Your task to perform on an android device: change keyboard looks Image 0: 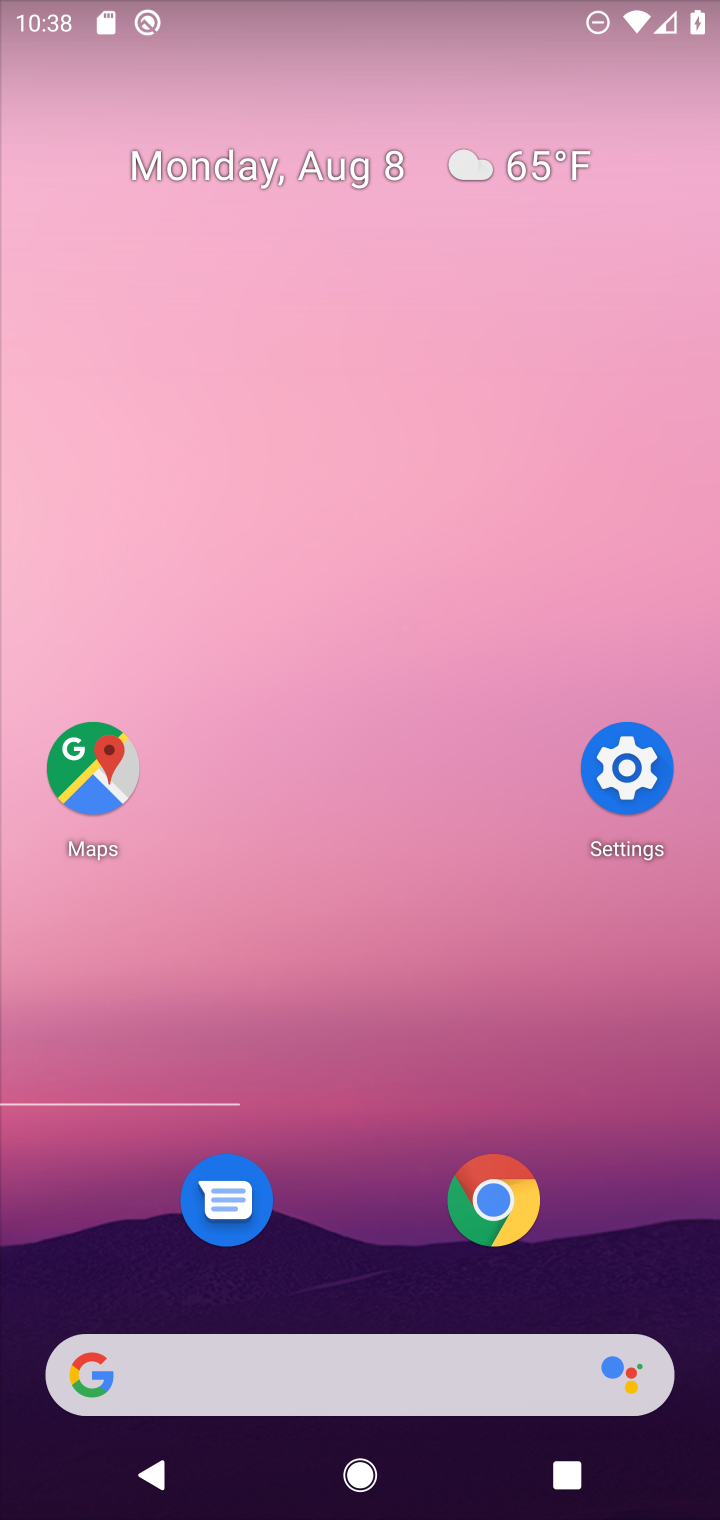
Step 0: press home button
Your task to perform on an android device: change keyboard looks Image 1: 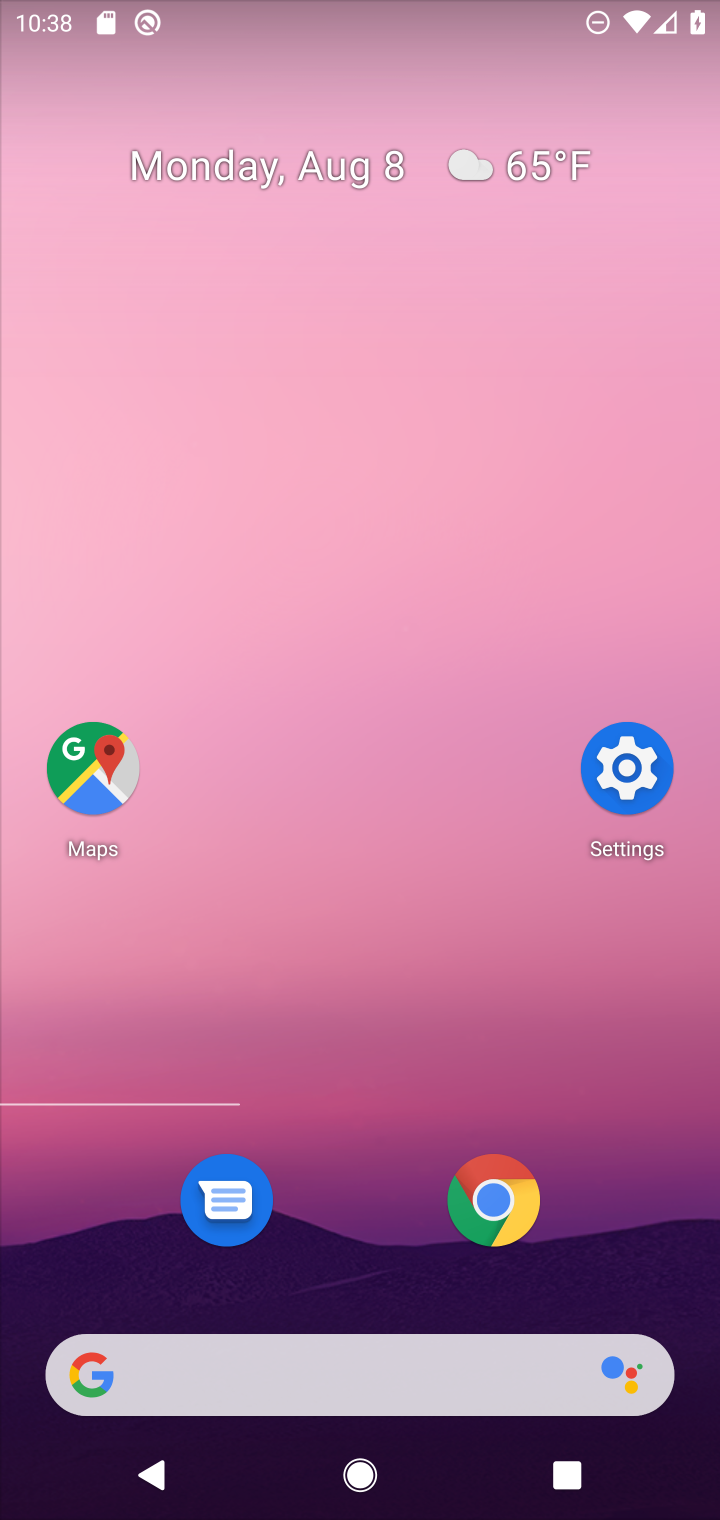
Step 1: drag from (312, 1354) to (605, 153)
Your task to perform on an android device: change keyboard looks Image 2: 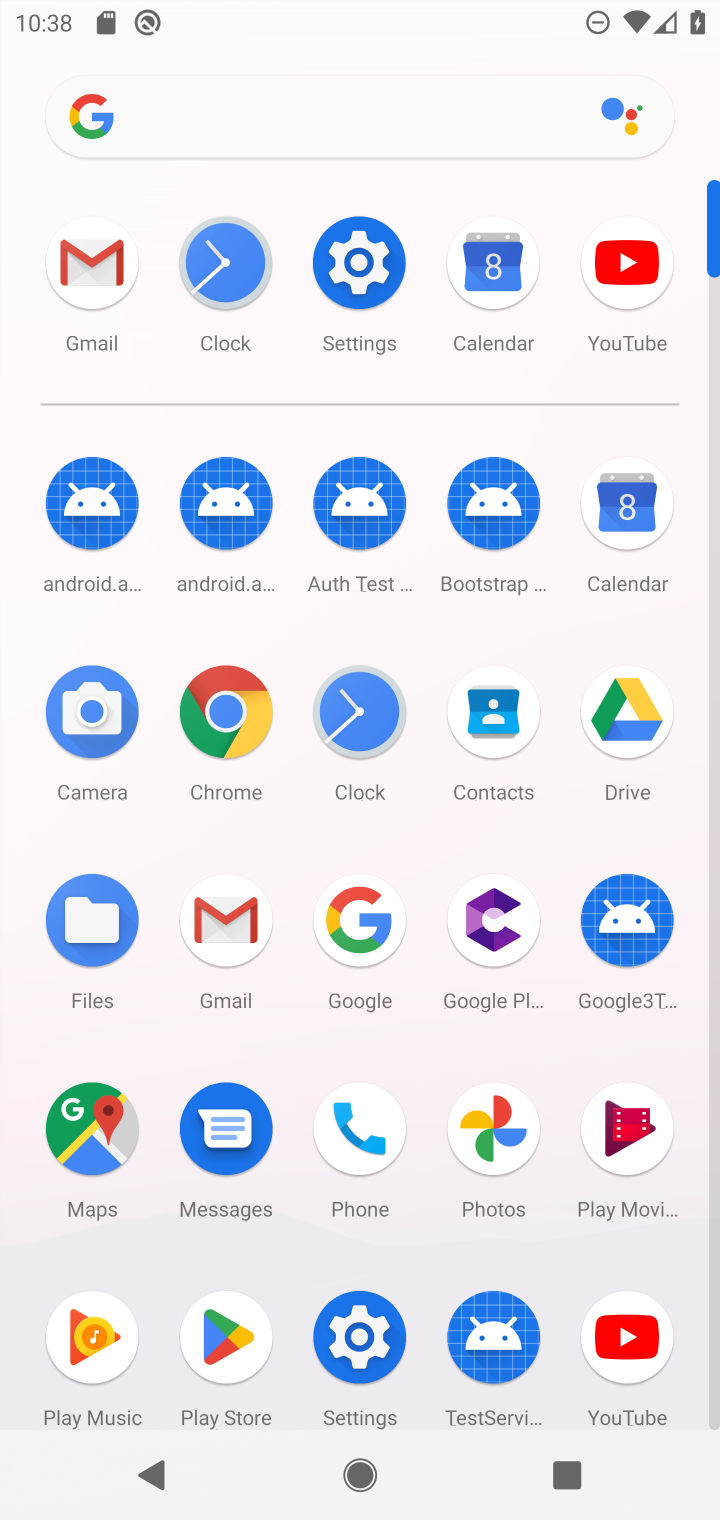
Step 2: click (349, 250)
Your task to perform on an android device: change keyboard looks Image 3: 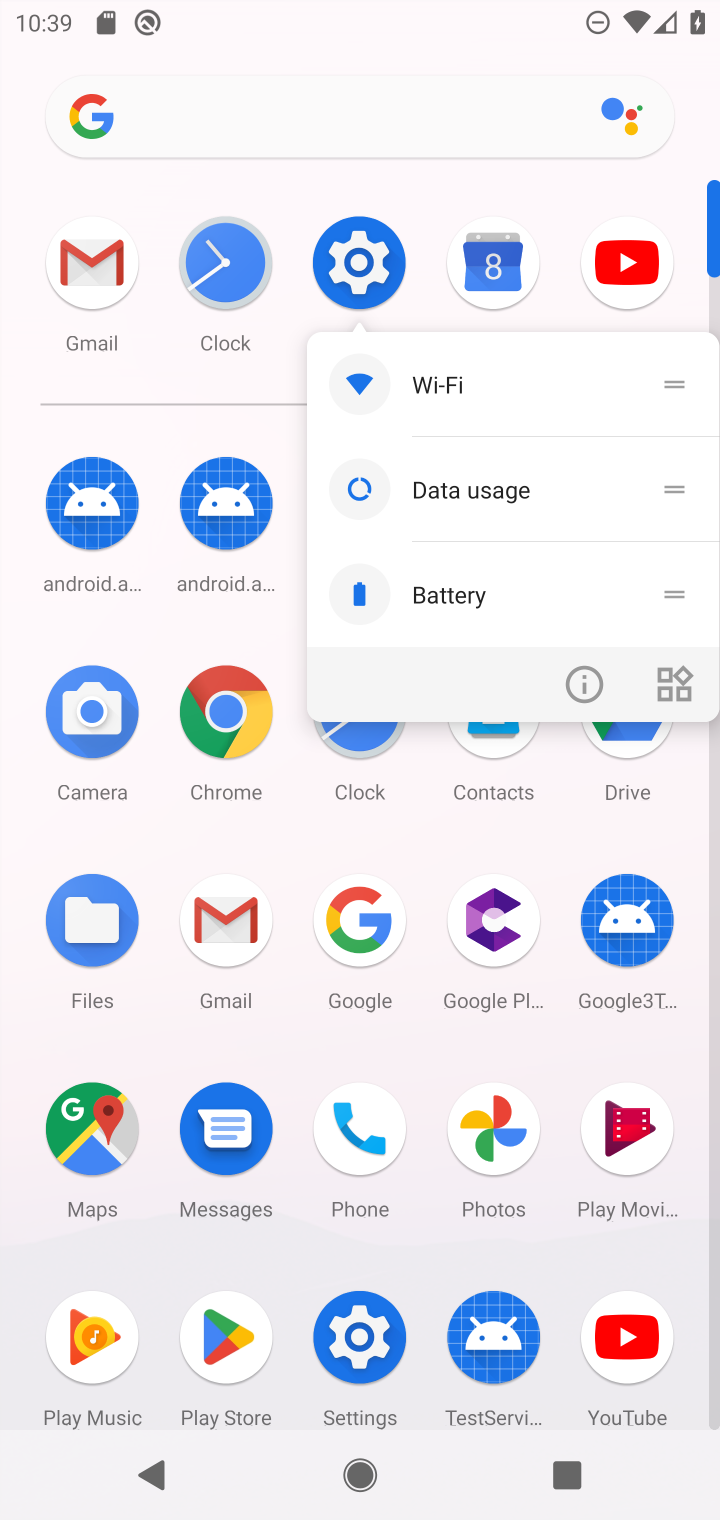
Step 3: click (349, 250)
Your task to perform on an android device: change keyboard looks Image 4: 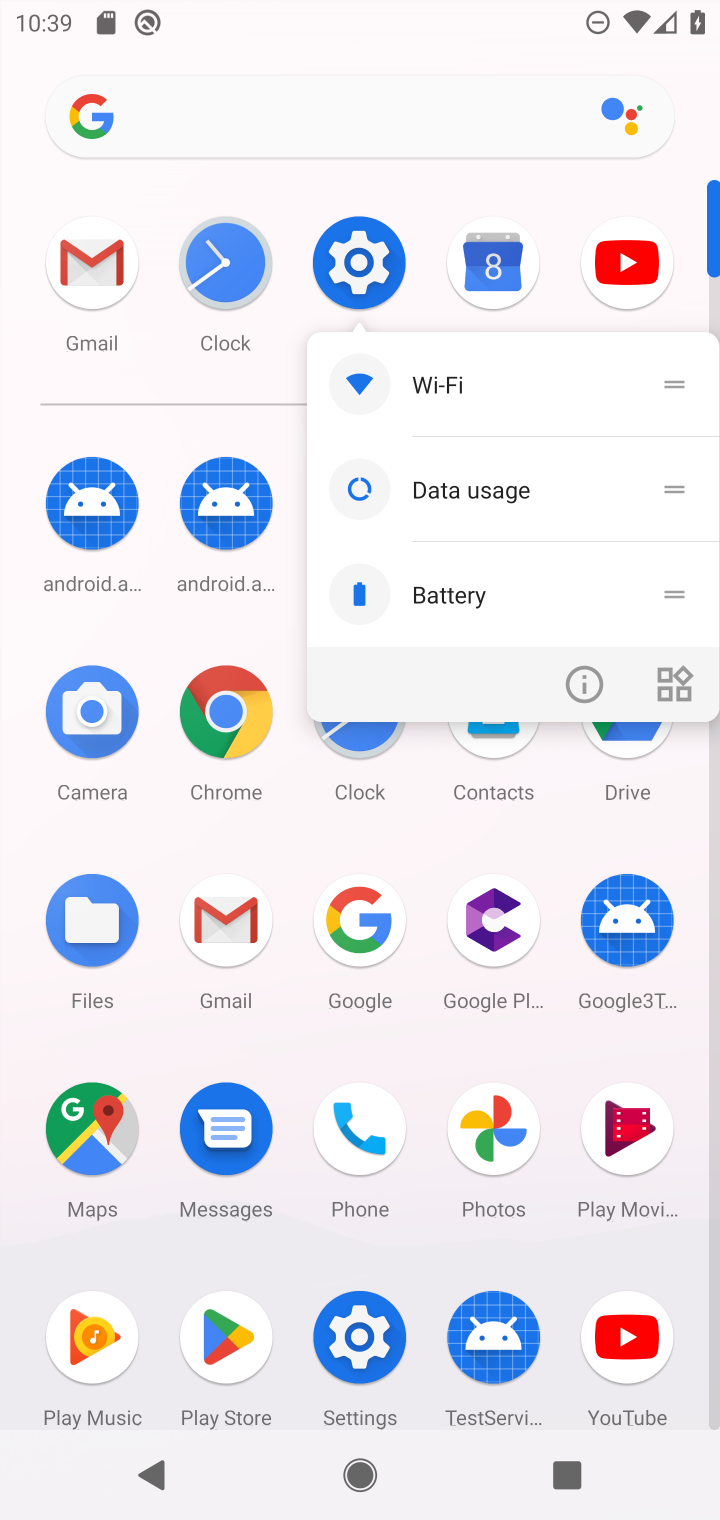
Step 4: click (349, 248)
Your task to perform on an android device: change keyboard looks Image 5: 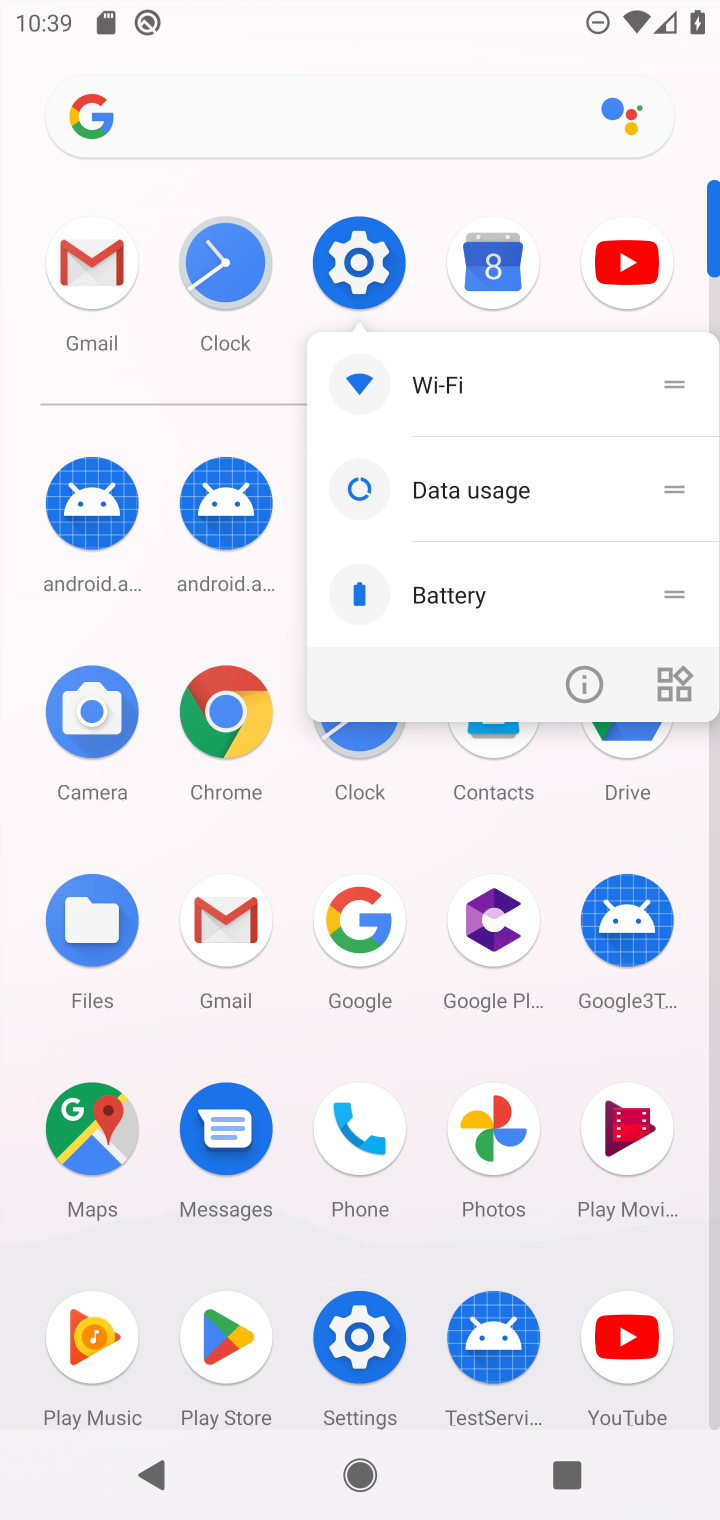
Step 5: click (351, 243)
Your task to perform on an android device: change keyboard looks Image 6: 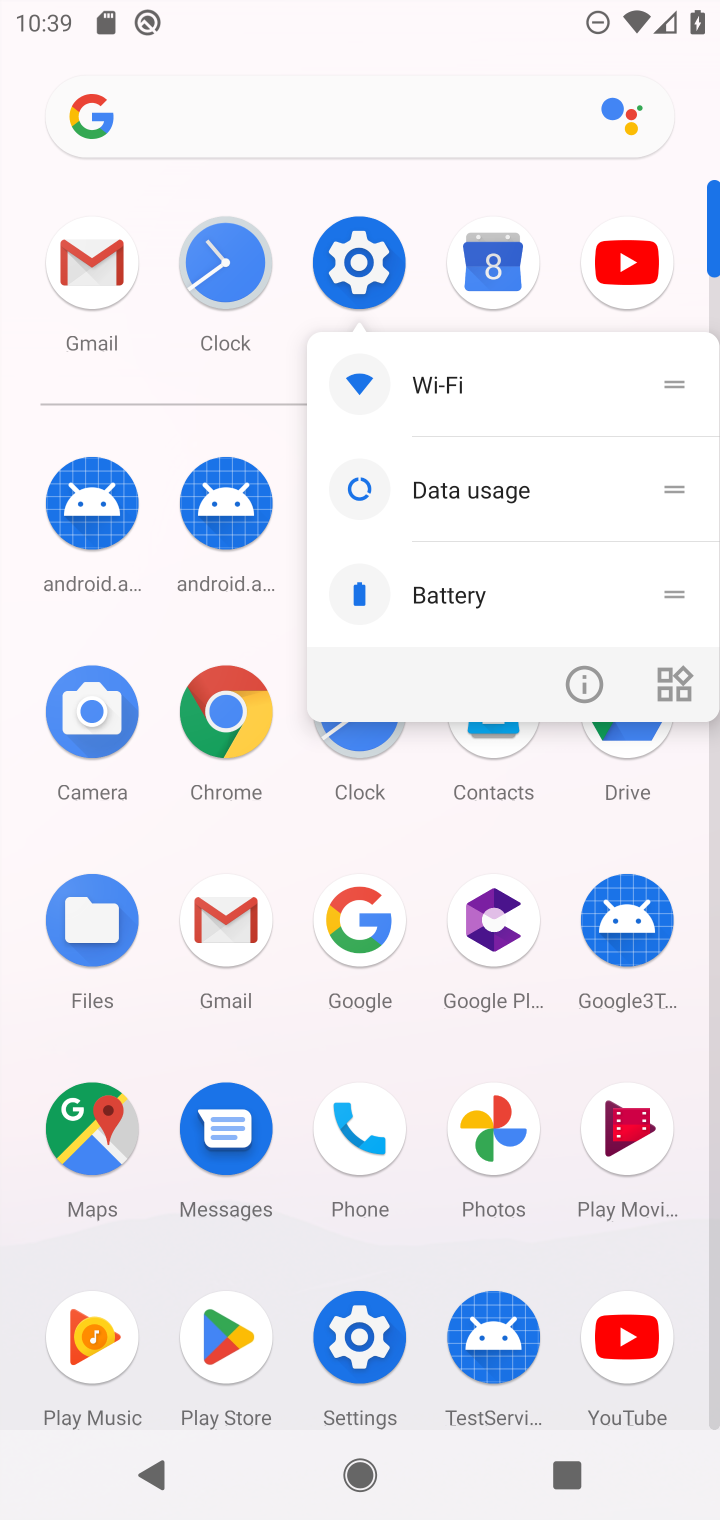
Step 6: click (385, 262)
Your task to perform on an android device: change keyboard looks Image 7: 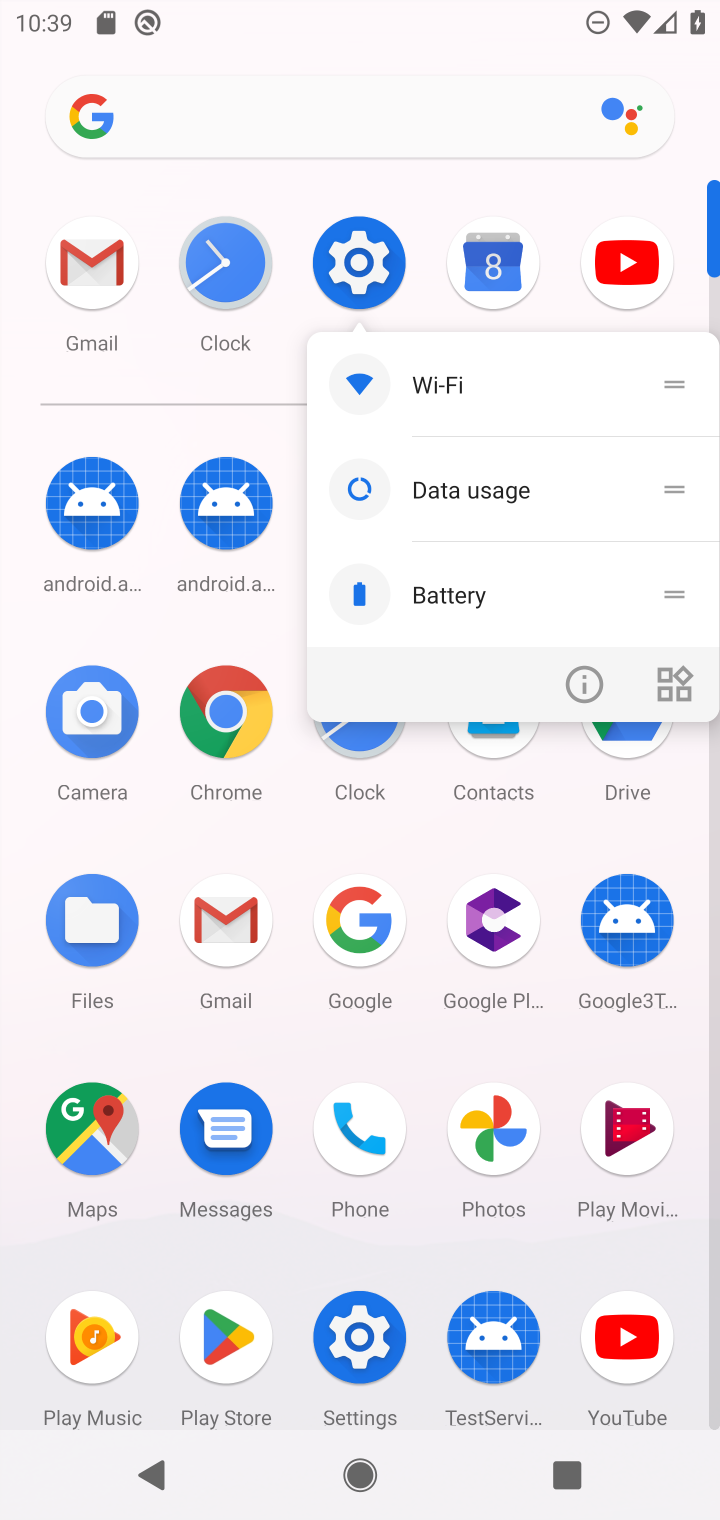
Step 7: click (364, 272)
Your task to perform on an android device: change keyboard looks Image 8: 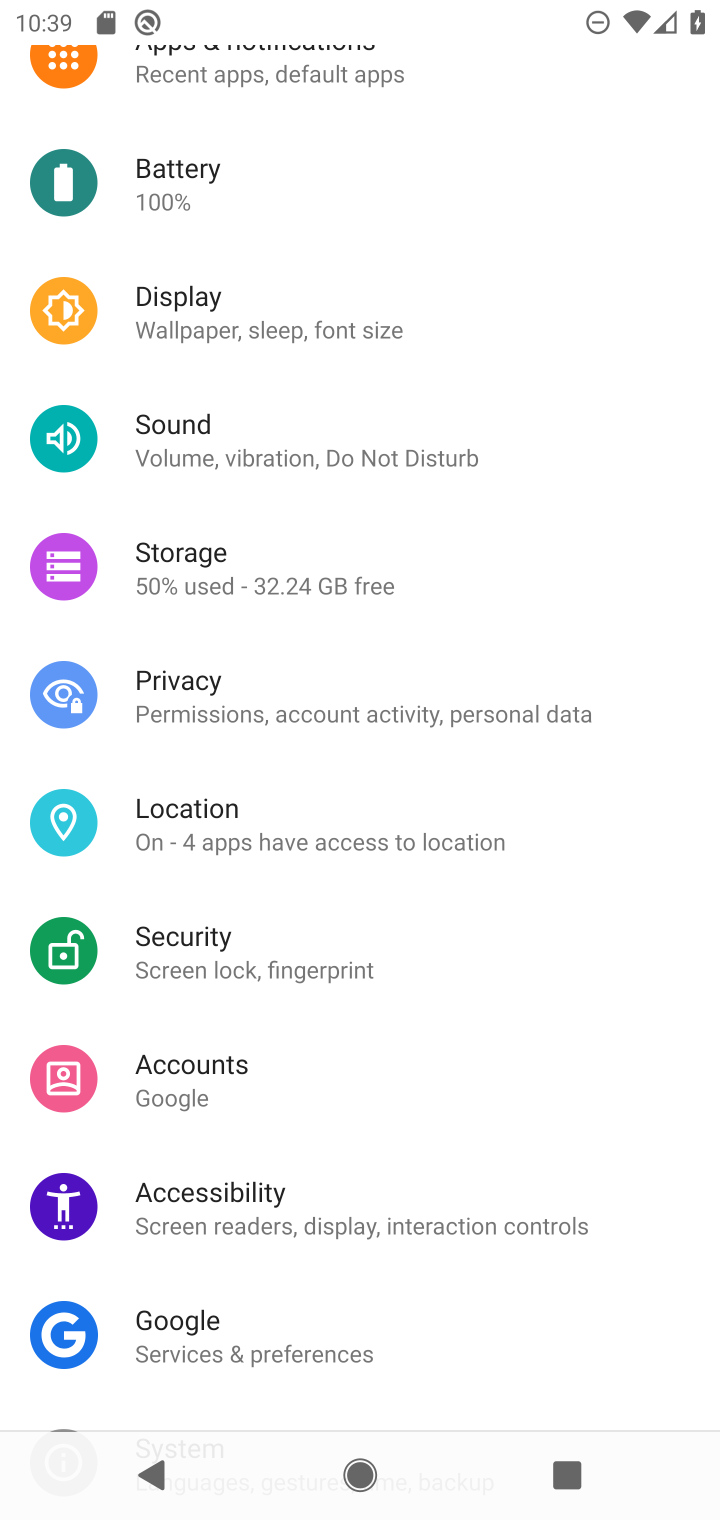
Step 8: drag from (401, 1108) to (595, 228)
Your task to perform on an android device: change keyboard looks Image 9: 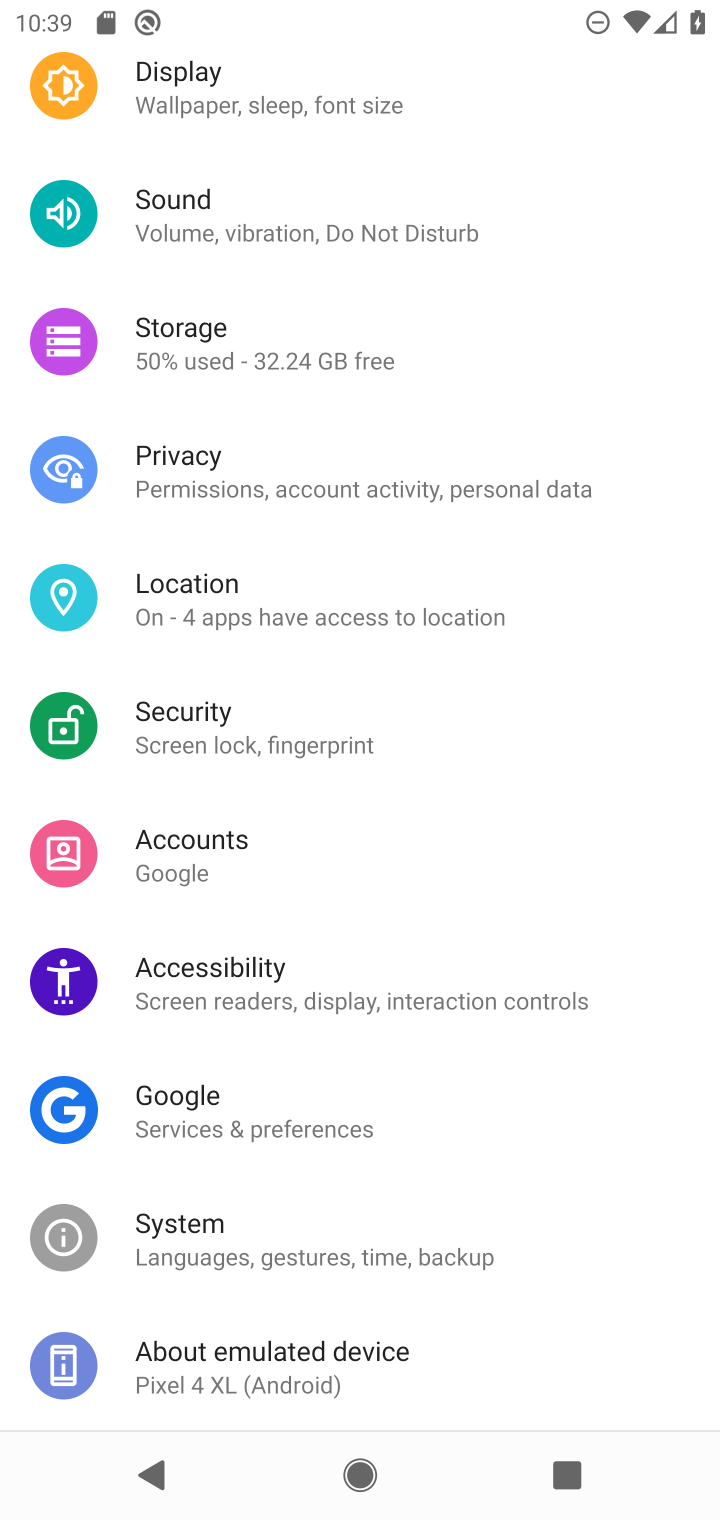
Step 9: click (162, 1235)
Your task to perform on an android device: change keyboard looks Image 10: 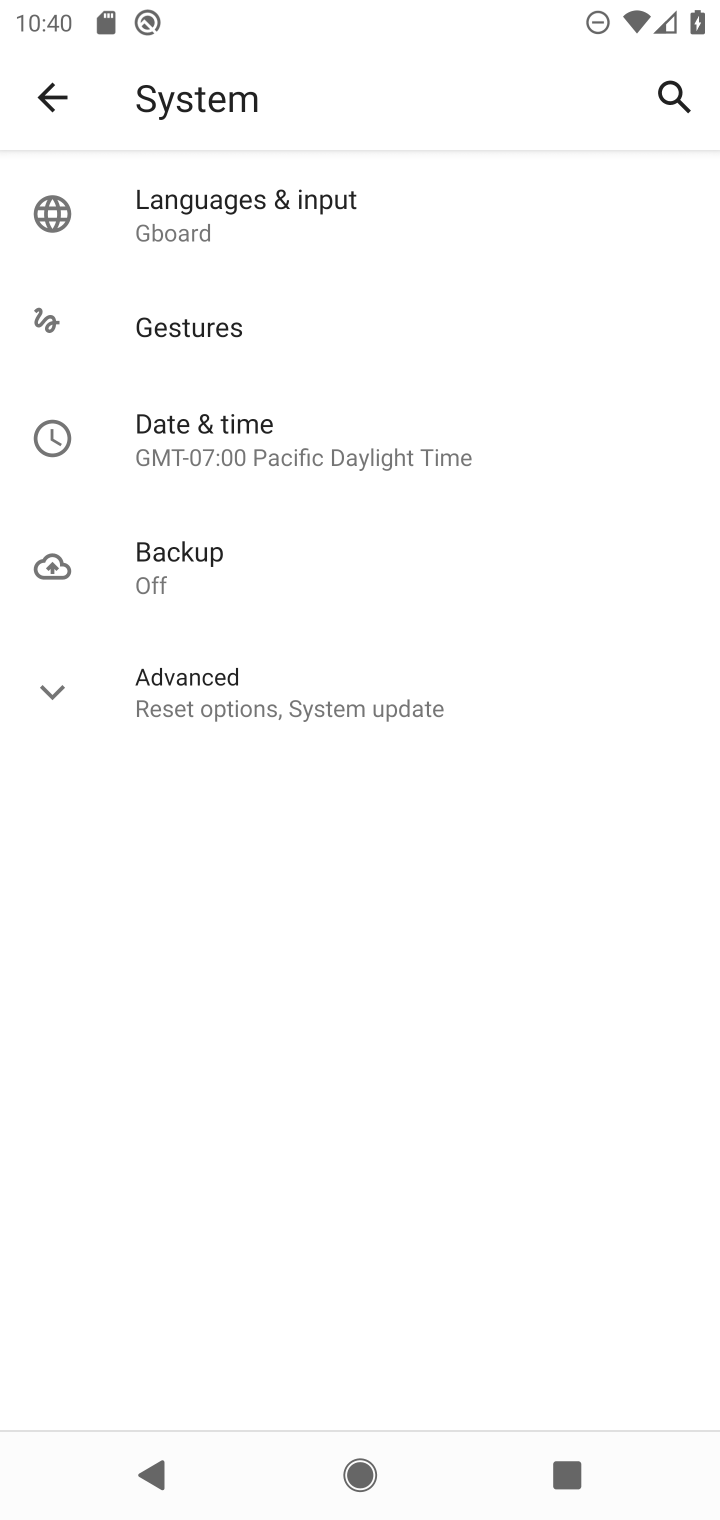
Step 10: click (254, 226)
Your task to perform on an android device: change keyboard looks Image 11: 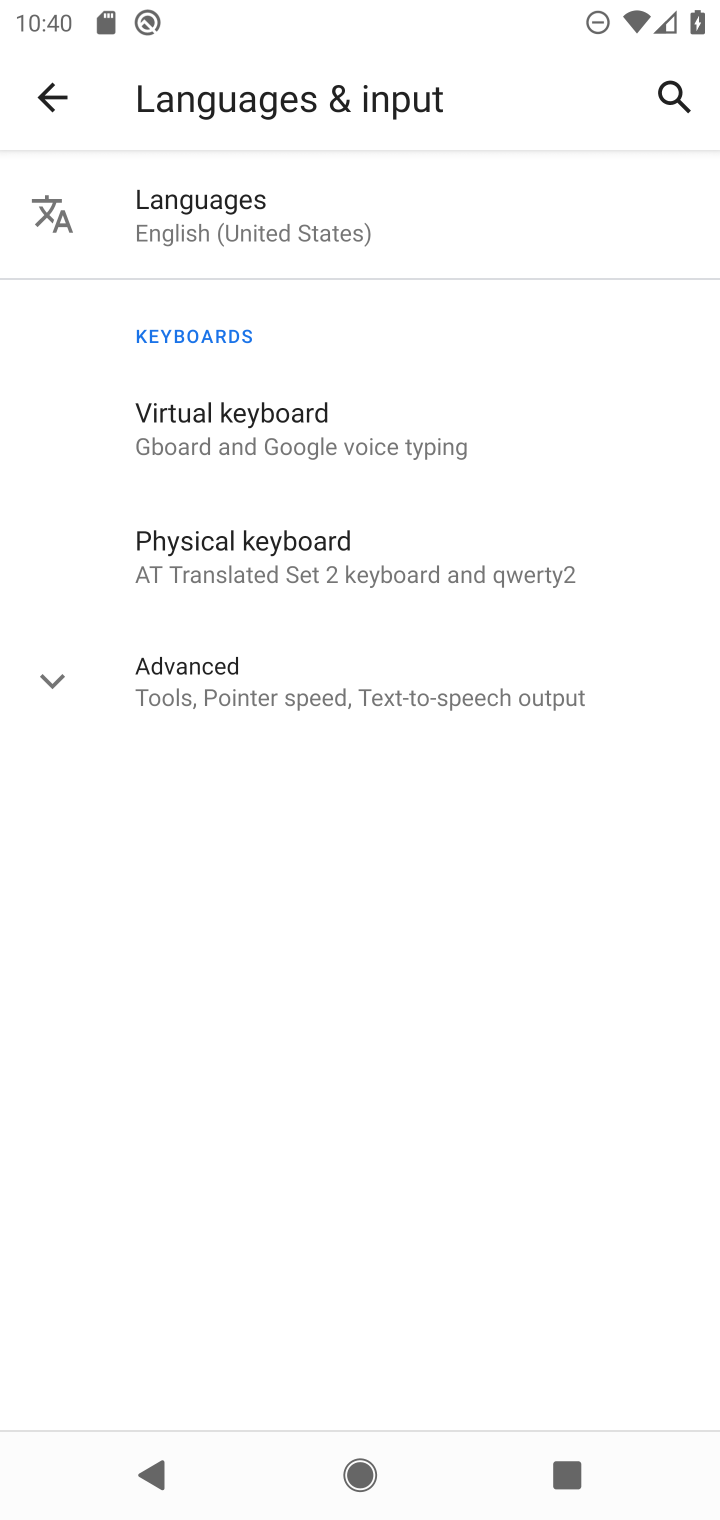
Step 11: click (258, 427)
Your task to perform on an android device: change keyboard looks Image 12: 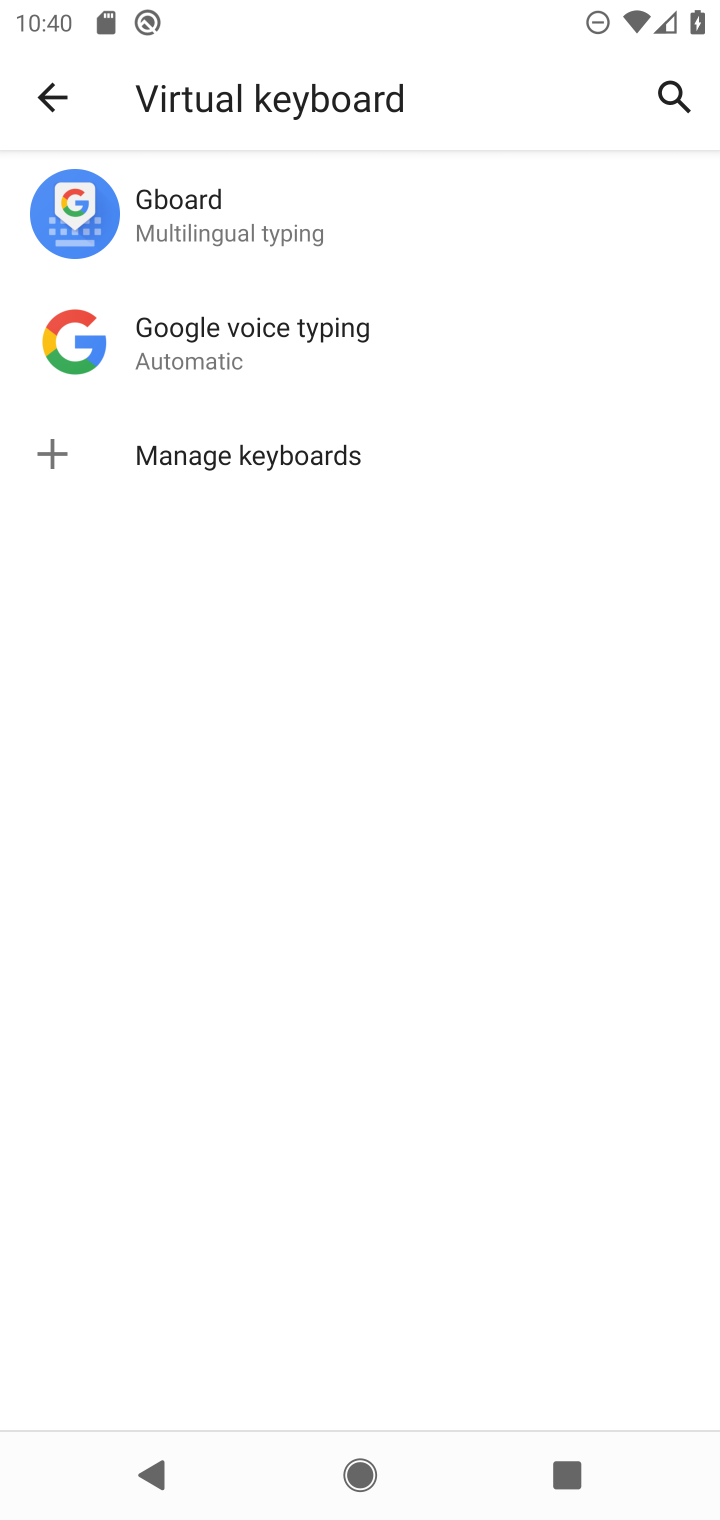
Step 12: click (223, 205)
Your task to perform on an android device: change keyboard looks Image 13: 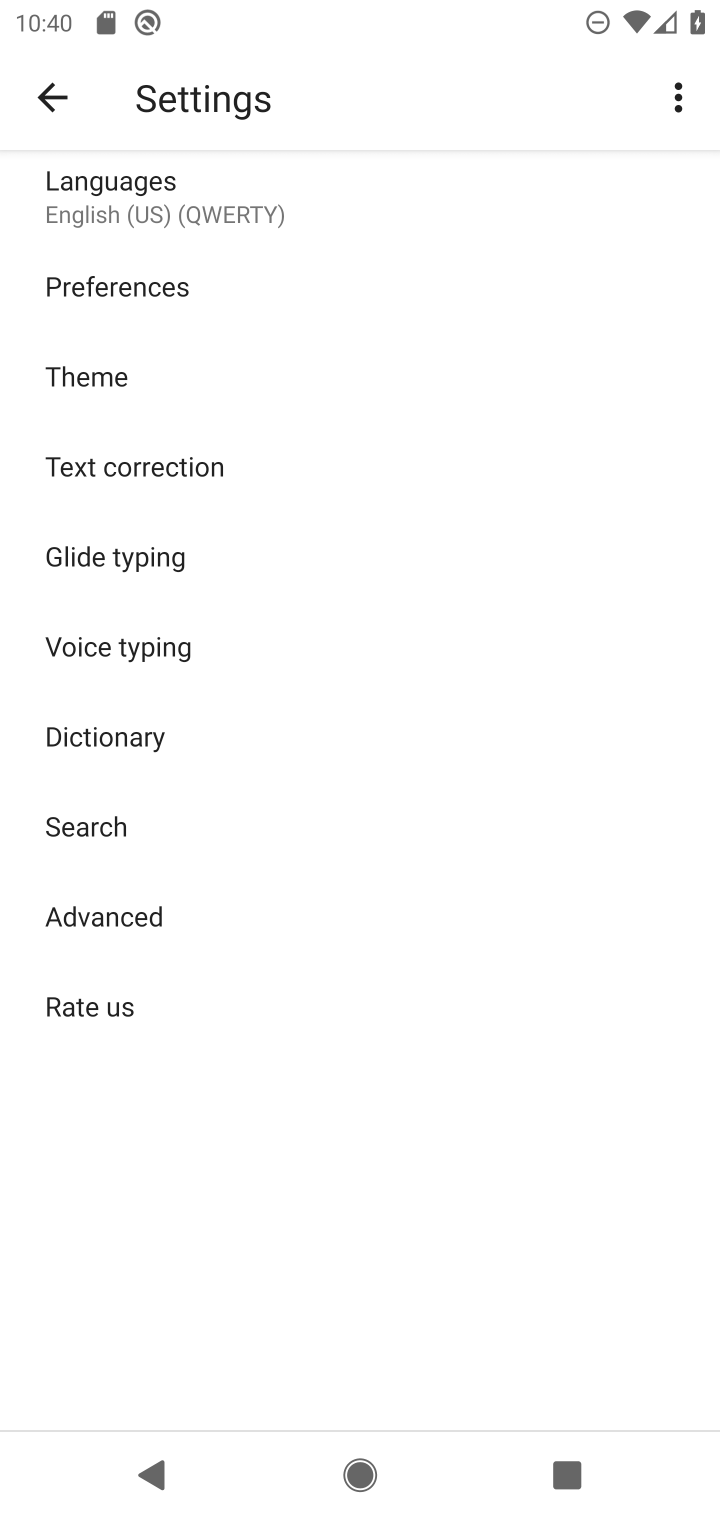
Step 13: click (120, 379)
Your task to perform on an android device: change keyboard looks Image 14: 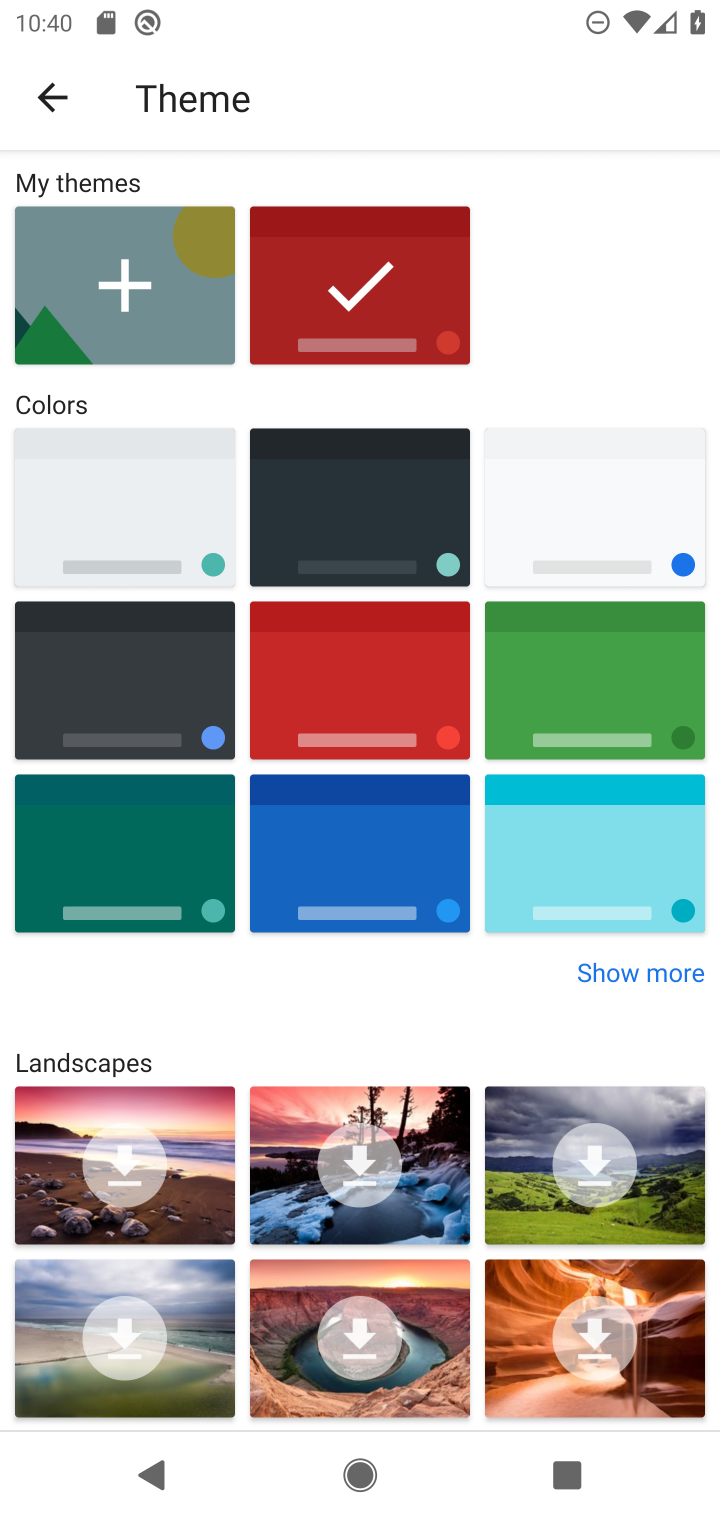
Step 14: click (393, 853)
Your task to perform on an android device: change keyboard looks Image 15: 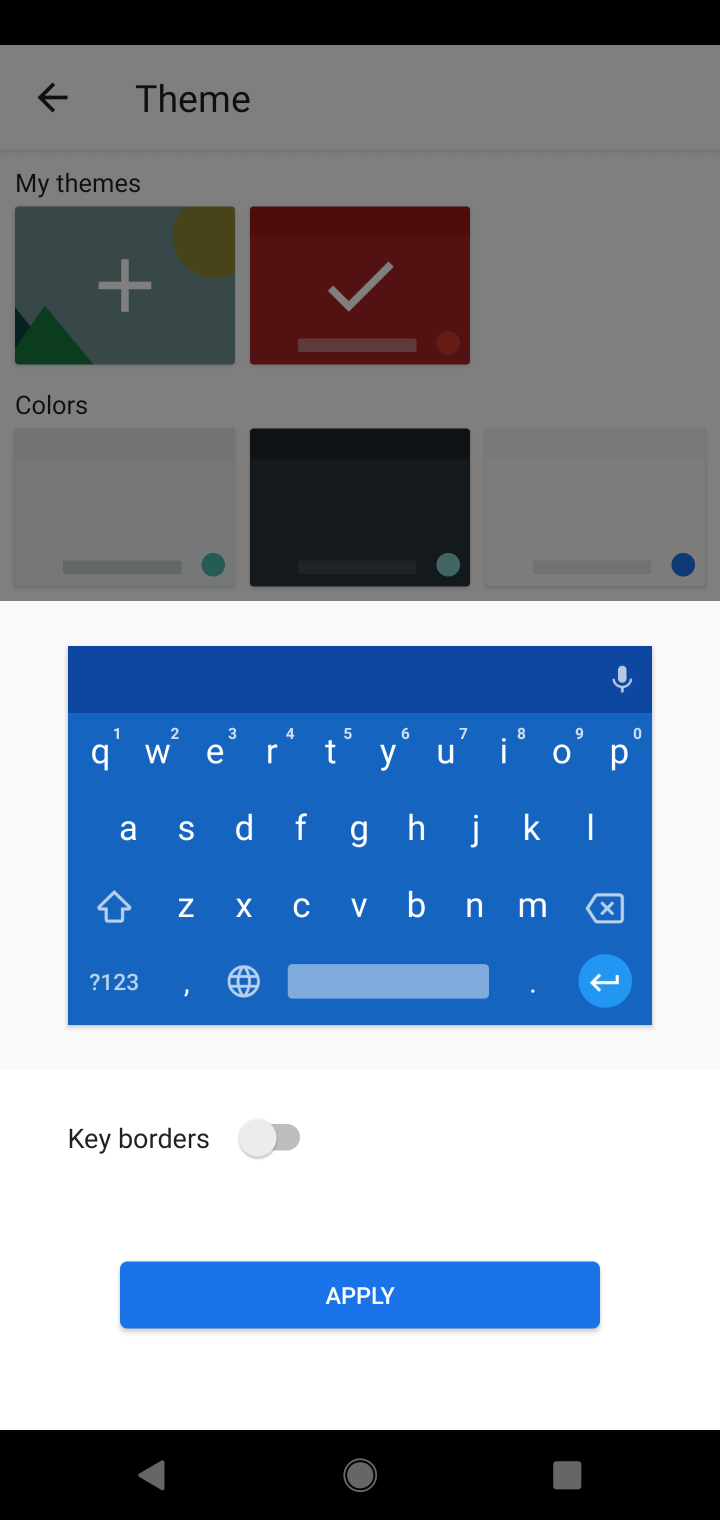
Step 15: click (370, 1309)
Your task to perform on an android device: change keyboard looks Image 16: 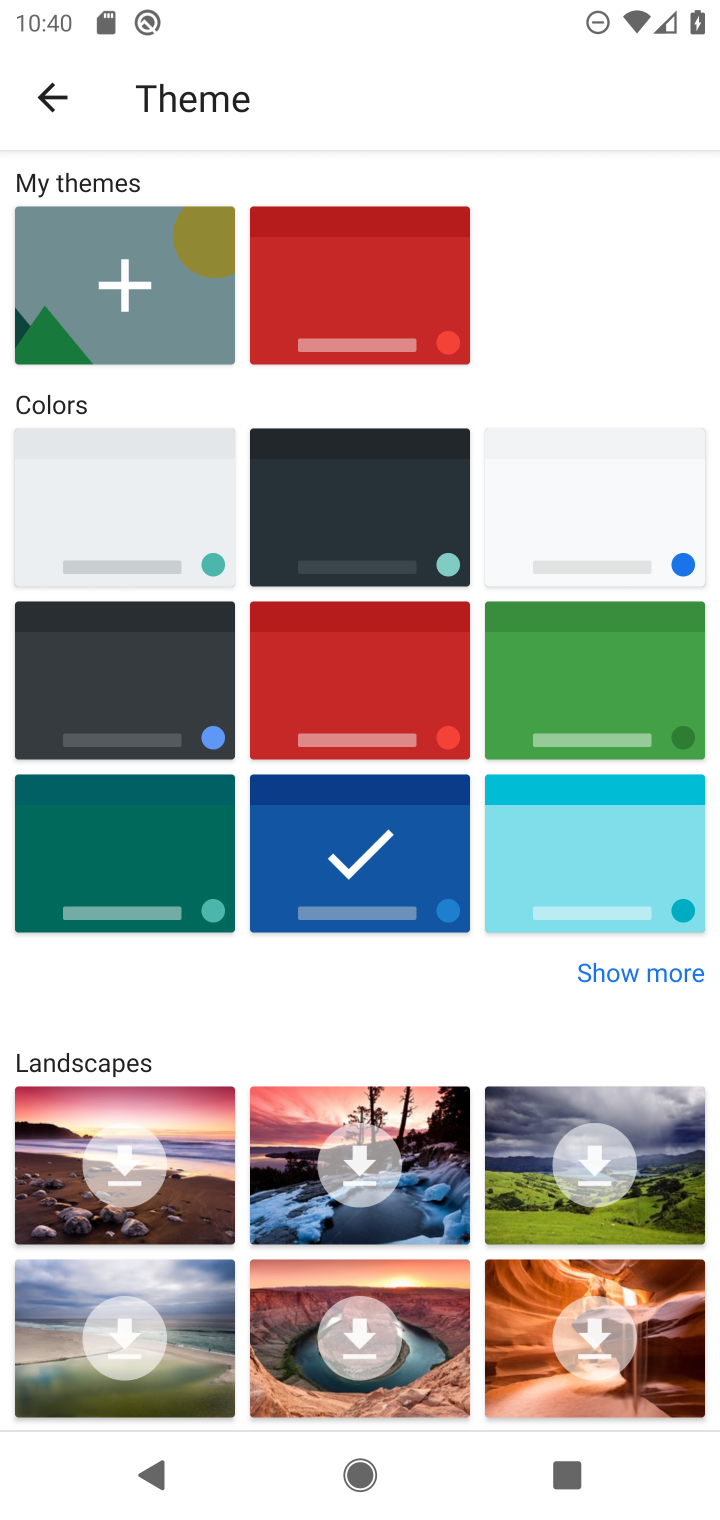
Step 16: task complete